Your task to perform on an android device: Open calendar and show me the second week of next month Image 0: 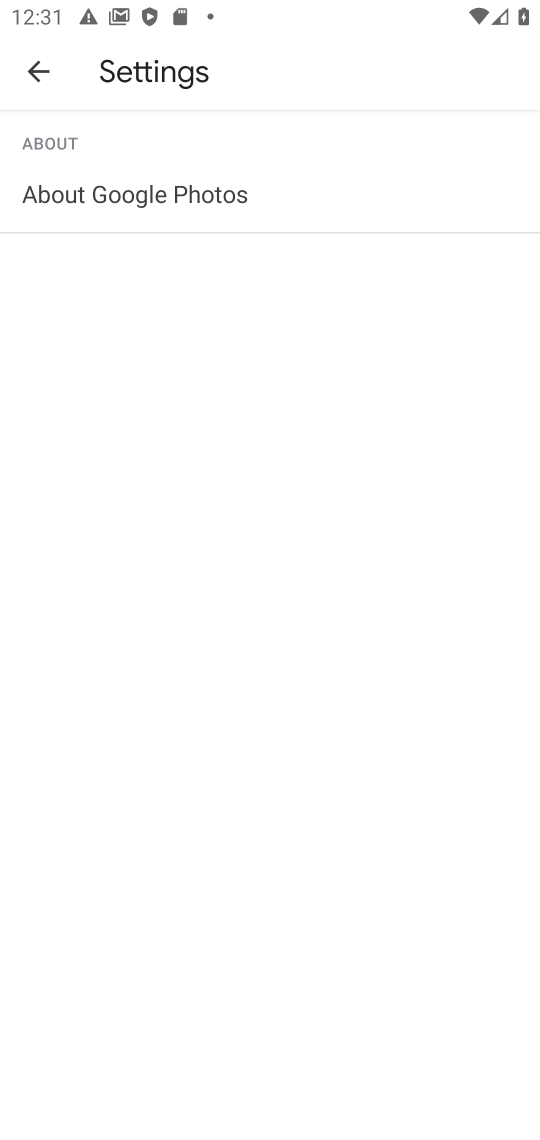
Step 0: press home button
Your task to perform on an android device: Open calendar and show me the second week of next month Image 1: 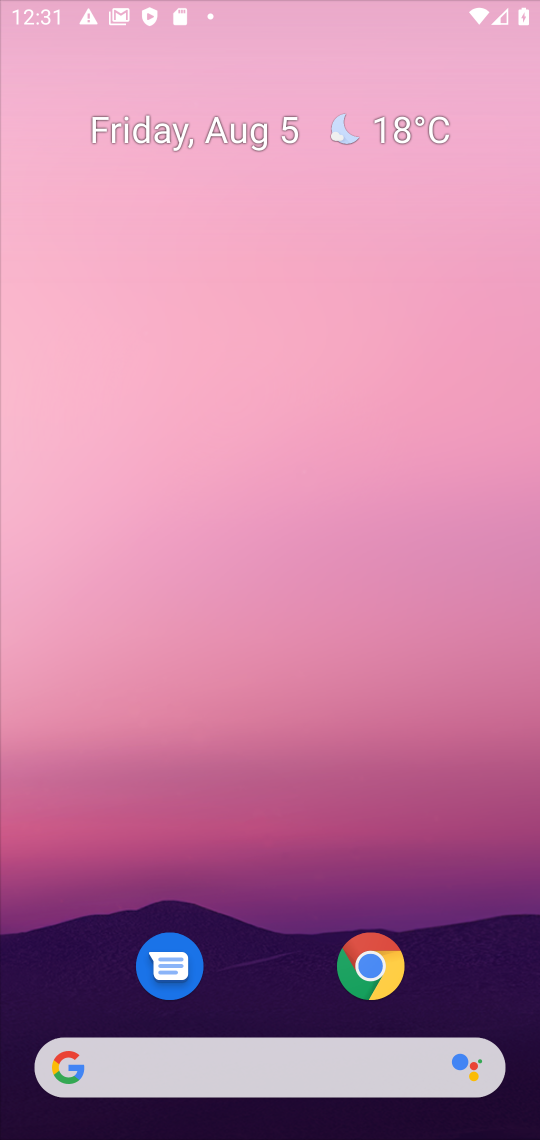
Step 1: drag from (236, 792) to (290, 46)
Your task to perform on an android device: Open calendar and show me the second week of next month Image 2: 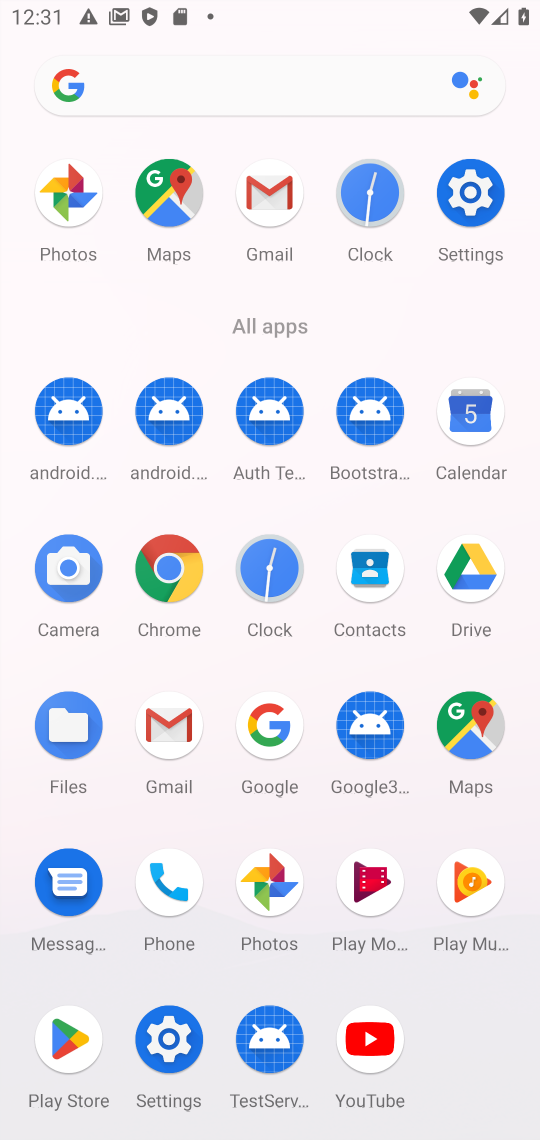
Step 2: click (472, 419)
Your task to perform on an android device: Open calendar and show me the second week of next month Image 3: 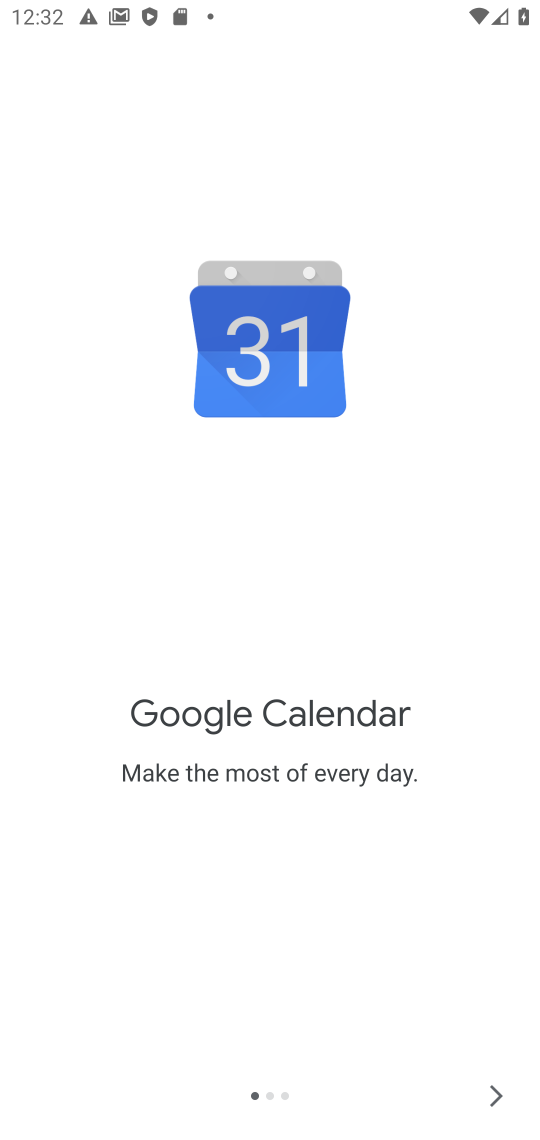
Step 3: click (486, 1094)
Your task to perform on an android device: Open calendar and show me the second week of next month Image 4: 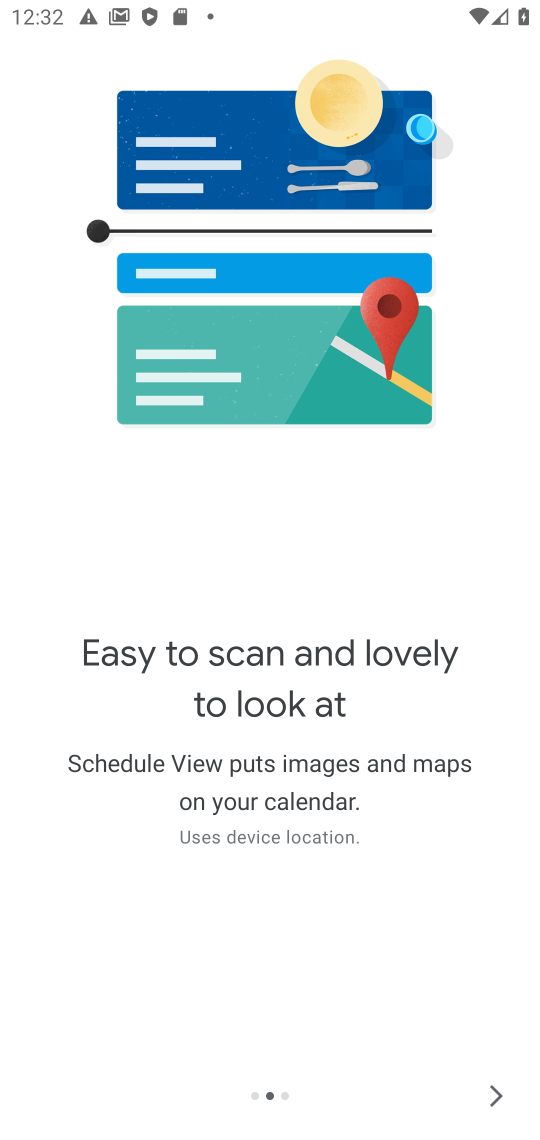
Step 4: click (486, 1094)
Your task to perform on an android device: Open calendar and show me the second week of next month Image 5: 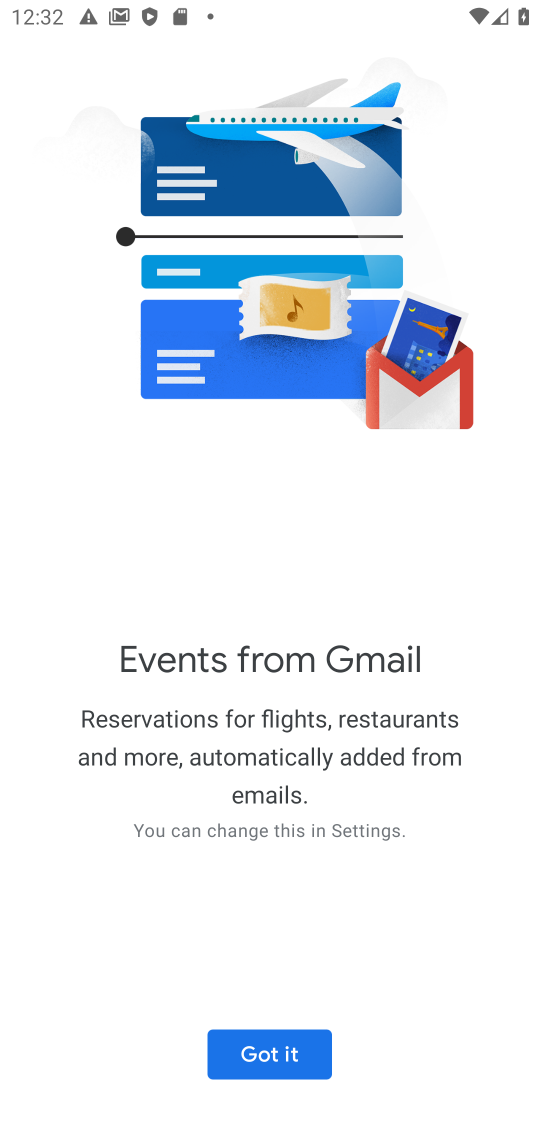
Step 5: click (313, 1053)
Your task to perform on an android device: Open calendar and show me the second week of next month Image 6: 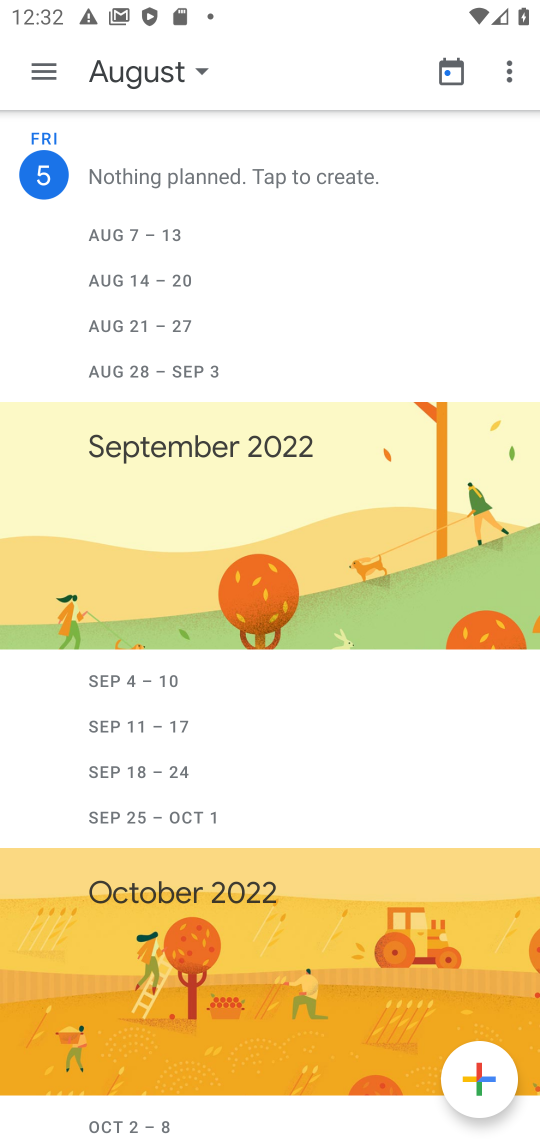
Step 6: click (47, 77)
Your task to perform on an android device: Open calendar and show me the second week of next month Image 7: 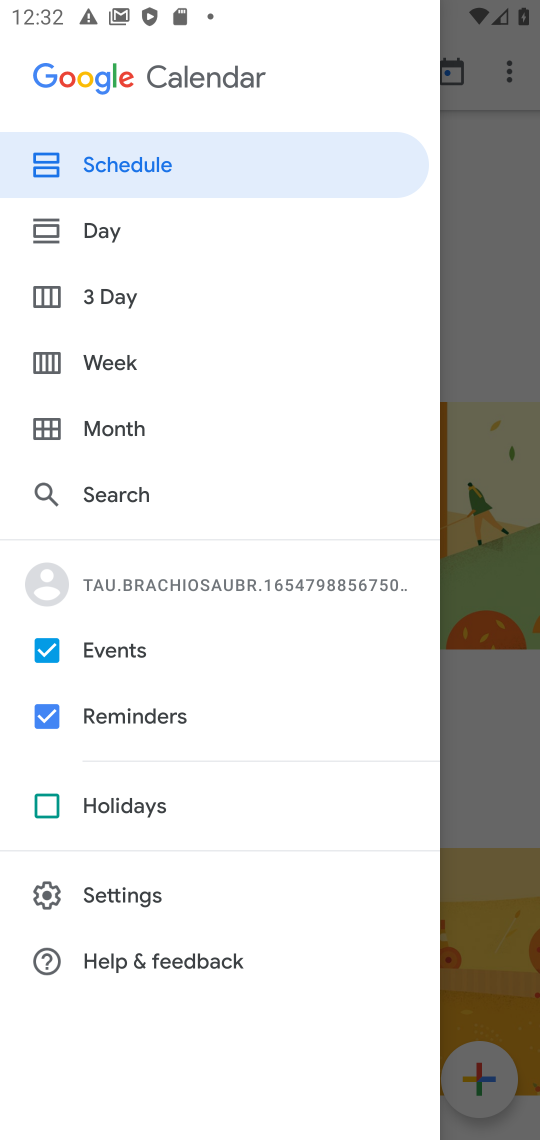
Step 7: click (50, 418)
Your task to perform on an android device: Open calendar and show me the second week of next month Image 8: 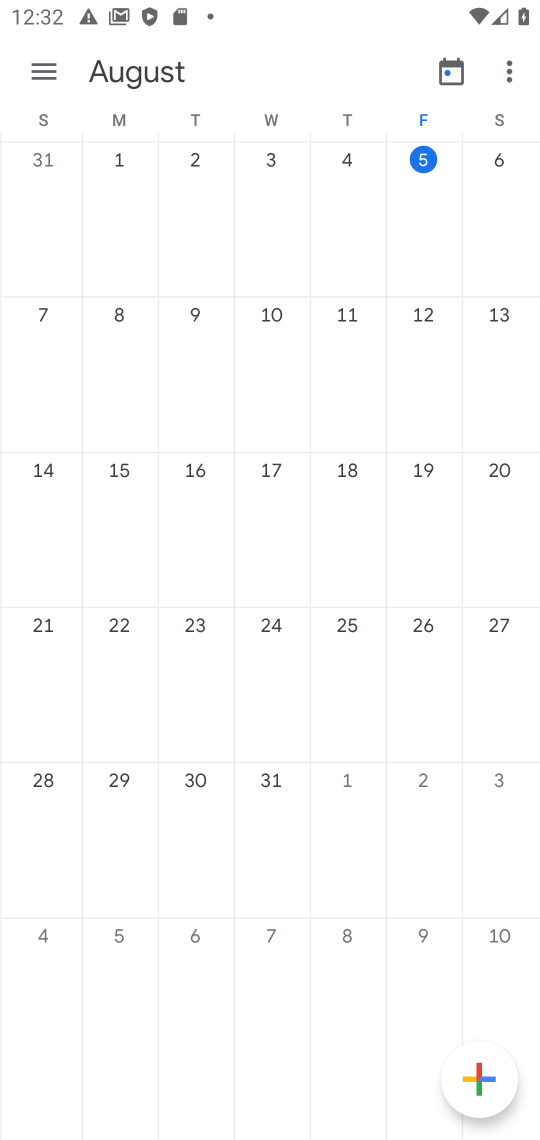
Step 8: drag from (500, 380) to (3, 401)
Your task to perform on an android device: Open calendar and show me the second week of next month Image 9: 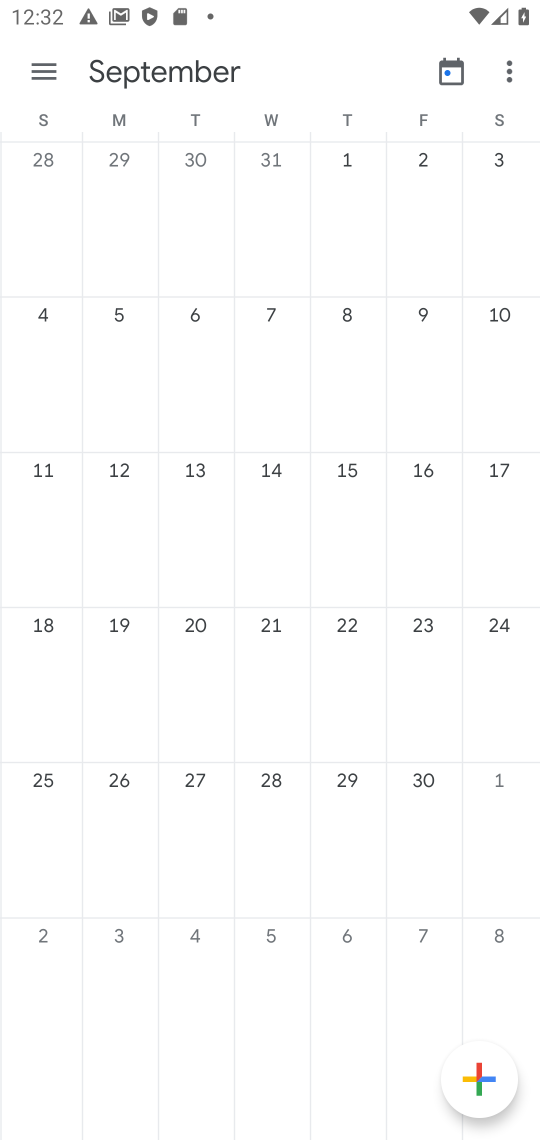
Step 9: click (42, 487)
Your task to perform on an android device: Open calendar and show me the second week of next month Image 10: 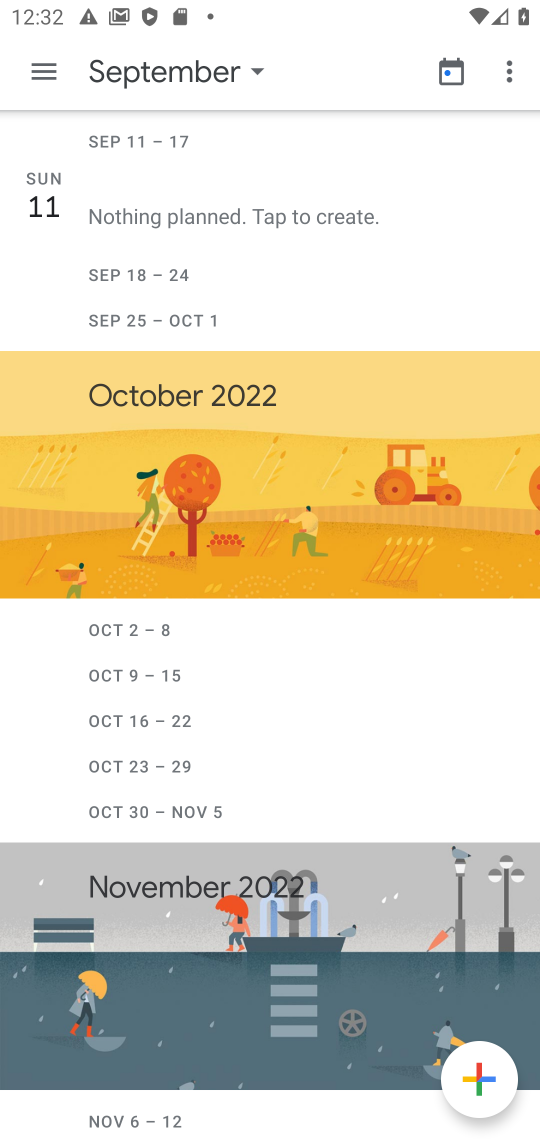
Step 10: click (41, 73)
Your task to perform on an android device: Open calendar and show me the second week of next month Image 11: 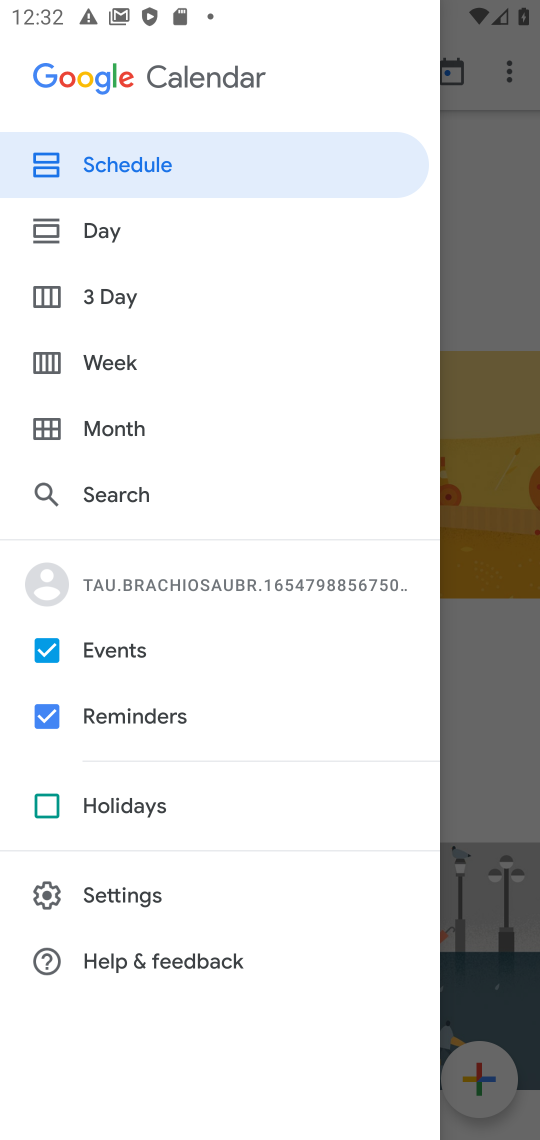
Step 11: click (49, 352)
Your task to perform on an android device: Open calendar and show me the second week of next month Image 12: 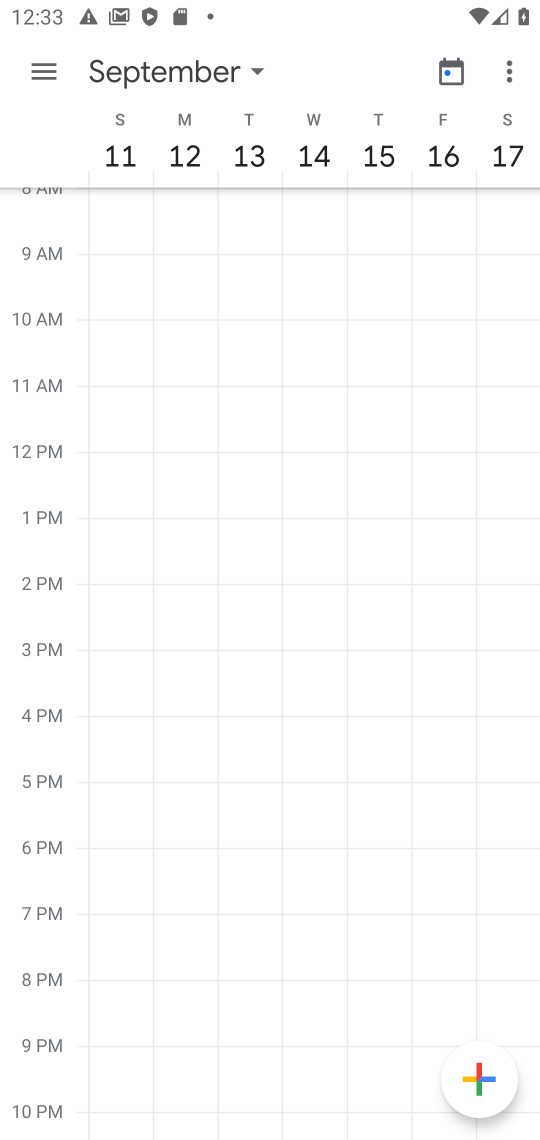
Step 12: task complete